Your task to perform on an android device: Search for Mexican restaurants on Maps Image 0: 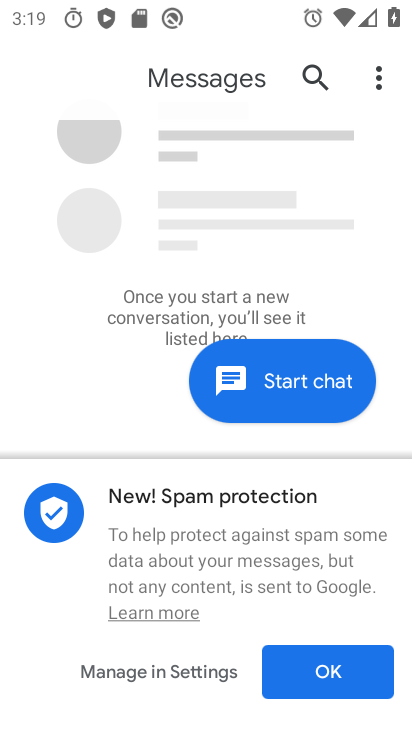
Step 0: press home button
Your task to perform on an android device: Search for Mexican restaurants on Maps Image 1: 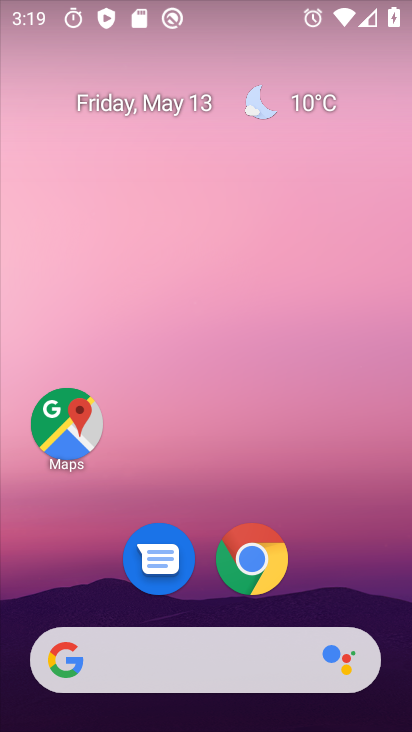
Step 1: click (81, 434)
Your task to perform on an android device: Search for Mexican restaurants on Maps Image 2: 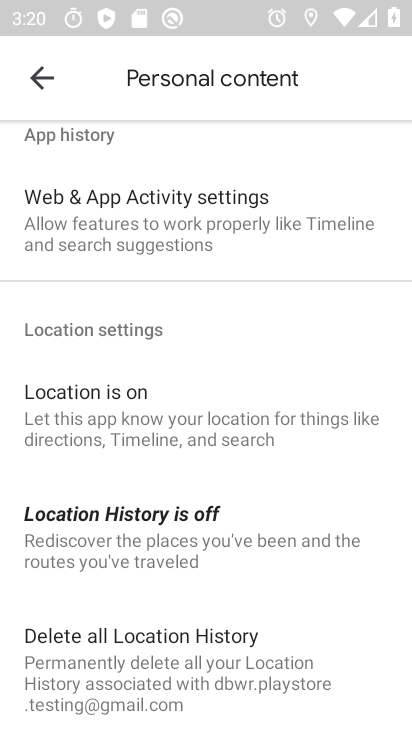
Step 2: click (30, 79)
Your task to perform on an android device: Search for Mexican restaurants on Maps Image 3: 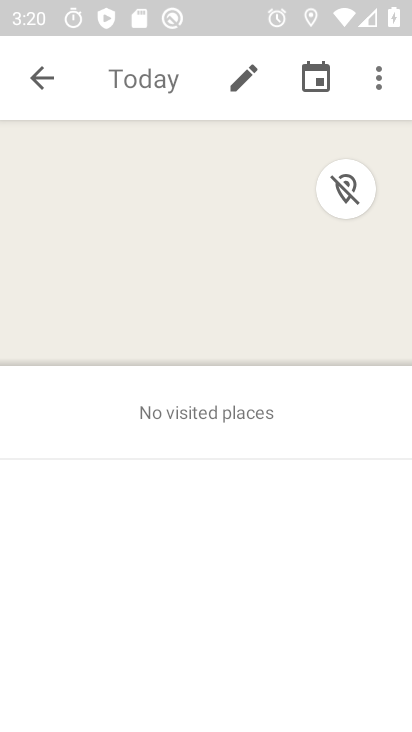
Step 3: click (48, 81)
Your task to perform on an android device: Search for Mexican restaurants on Maps Image 4: 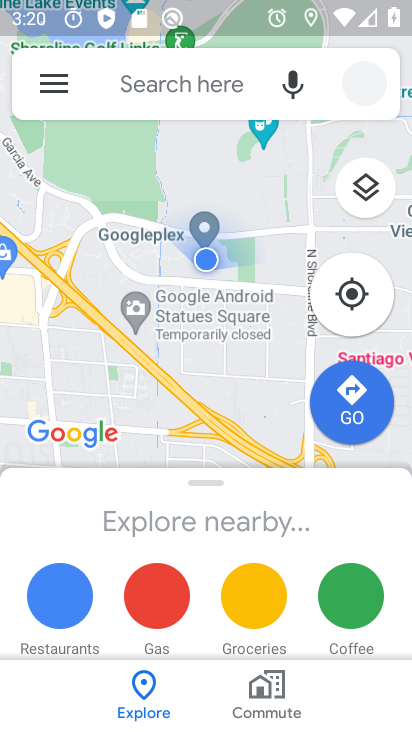
Step 4: click (134, 75)
Your task to perform on an android device: Search for Mexican restaurants on Maps Image 5: 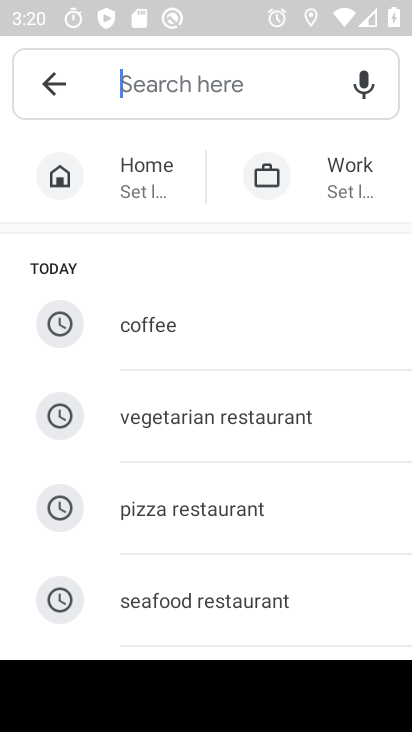
Step 5: type "Mexican restaurants"
Your task to perform on an android device: Search for Mexican restaurants on Maps Image 6: 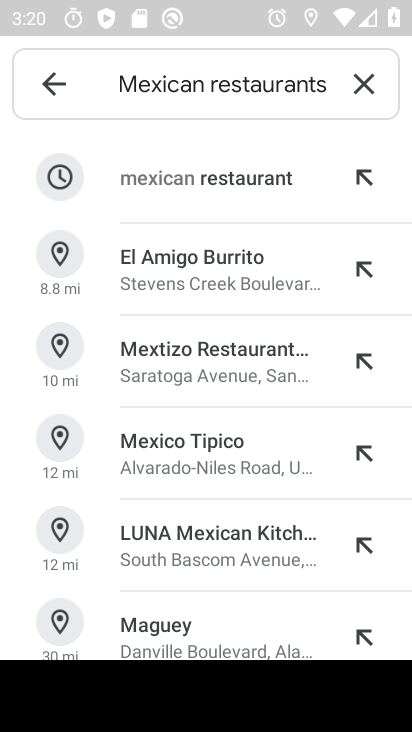
Step 6: click (201, 176)
Your task to perform on an android device: Search for Mexican restaurants on Maps Image 7: 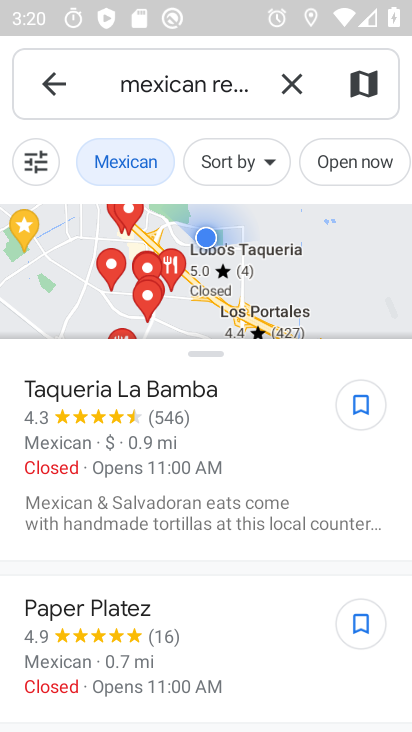
Step 7: task complete